Your task to perform on an android device: change alarm snooze length Image 0: 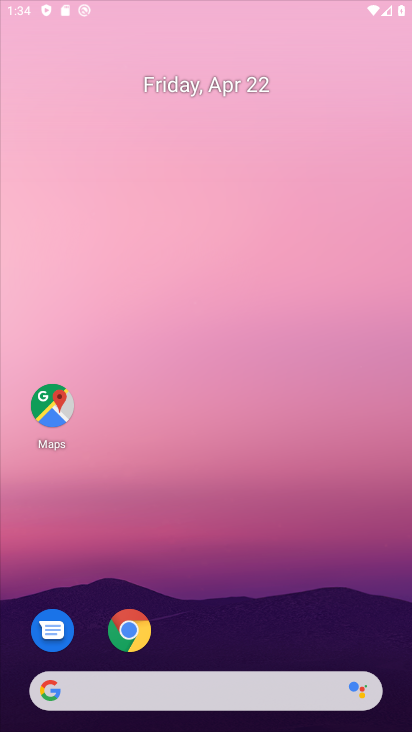
Step 0: press home button
Your task to perform on an android device: change alarm snooze length Image 1: 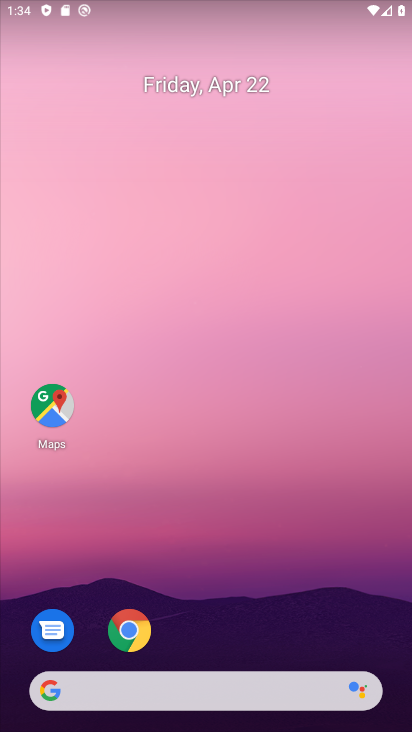
Step 1: drag from (348, 608) to (342, 186)
Your task to perform on an android device: change alarm snooze length Image 2: 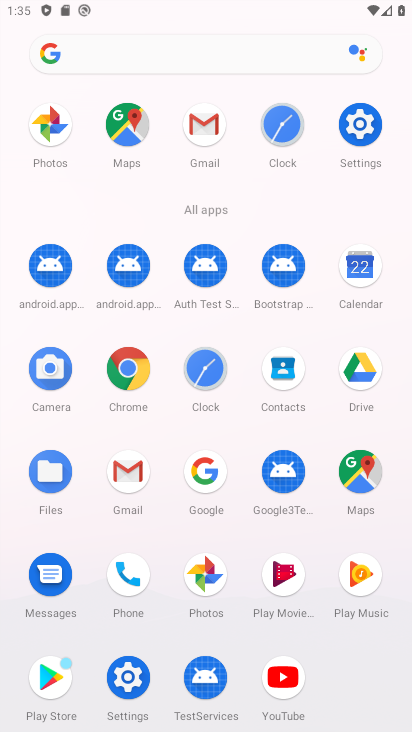
Step 2: click (211, 370)
Your task to perform on an android device: change alarm snooze length Image 3: 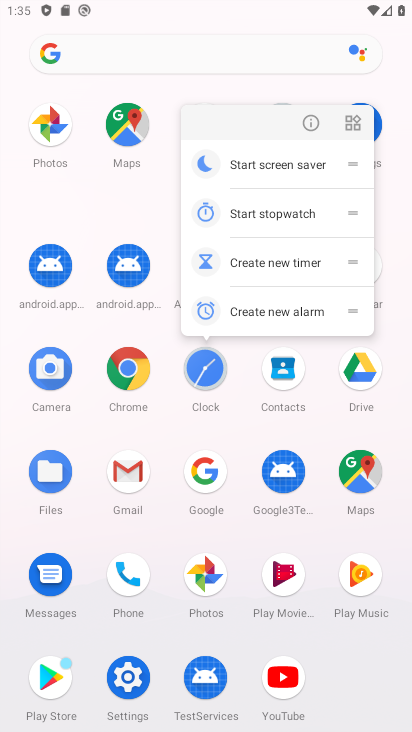
Step 3: click (204, 387)
Your task to perform on an android device: change alarm snooze length Image 4: 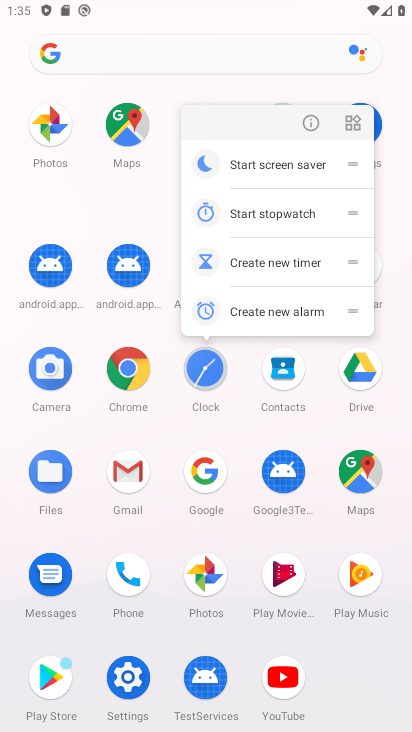
Step 4: click (203, 374)
Your task to perform on an android device: change alarm snooze length Image 5: 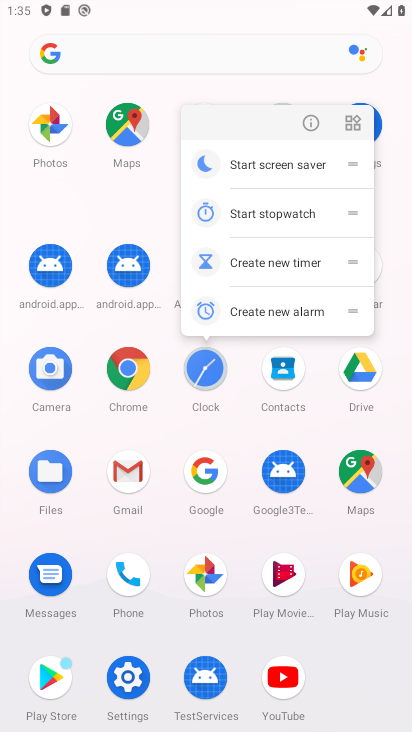
Step 5: click (199, 383)
Your task to perform on an android device: change alarm snooze length Image 6: 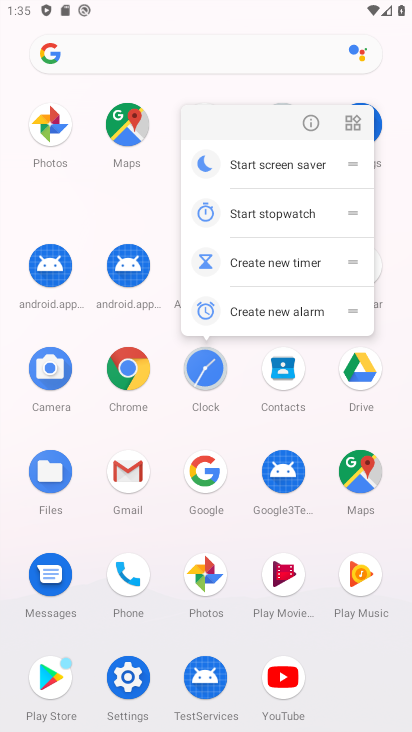
Step 6: click (204, 387)
Your task to perform on an android device: change alarm snooze length Image 7: 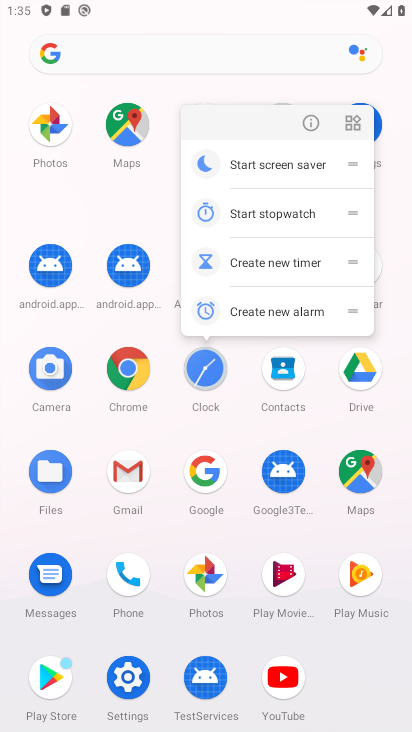
Step 7: click (222, 369)
Your task to perform on an android device: change alarm snooze length Image 8: 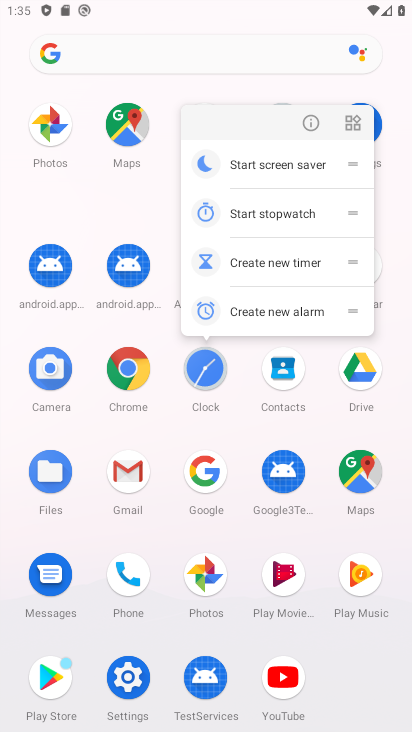
Step 8: click (204, 395)
Your task to perform on an android device: change alarm snooze length Image 9: 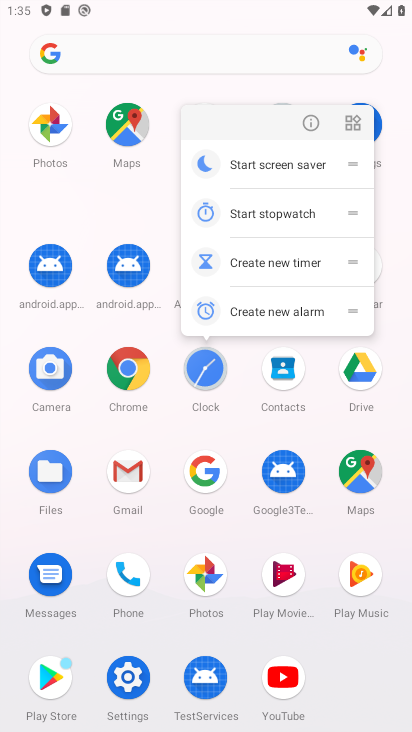
Step 9: click (212, 358)
Your task to perform on an android device: change alarm snooze length Image 10: 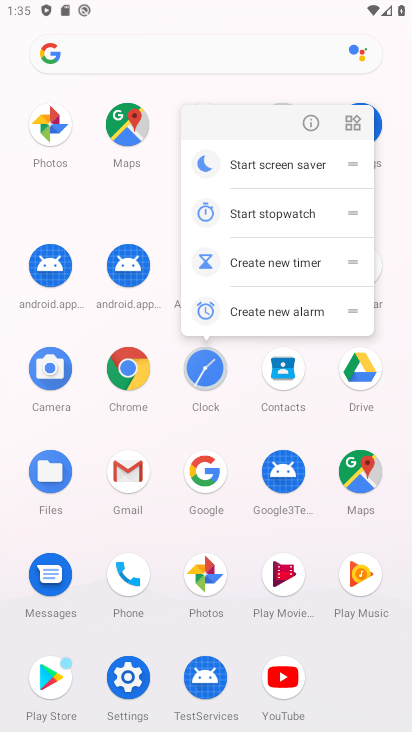
Step 10: click (206, 377)
Your task to perform on an android device: change alarm snooze length Image 11: 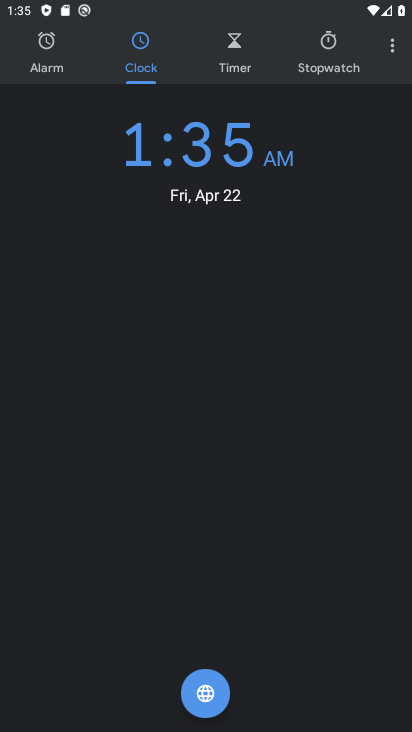
Step 11: click (397, 44)
Your task to perform on an android device: change alarm snooze length Image 12: 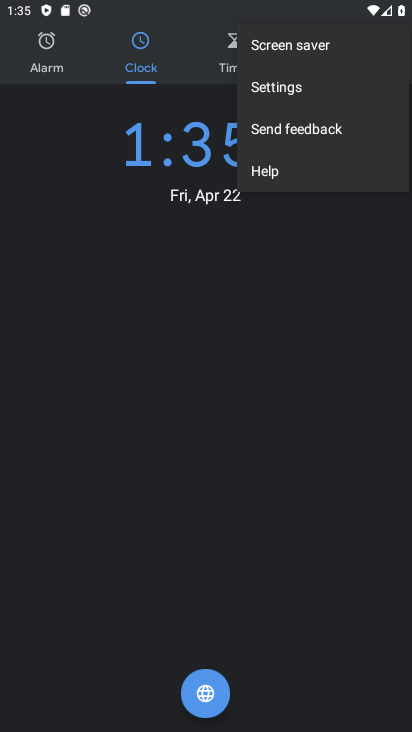
Step 12: click (303, 97)
Your task to perform on an android device: change alarm snooze length Image 13: 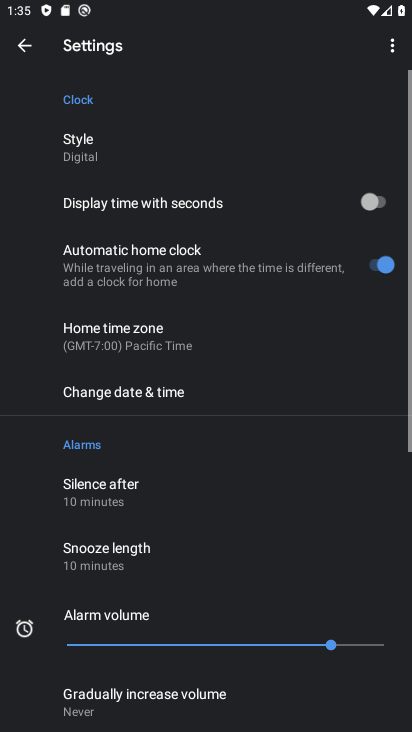
Step 13: drag from (230, 555) to (229, 189)
Your task to perform on an android device: change alarm snooze length Image 14: 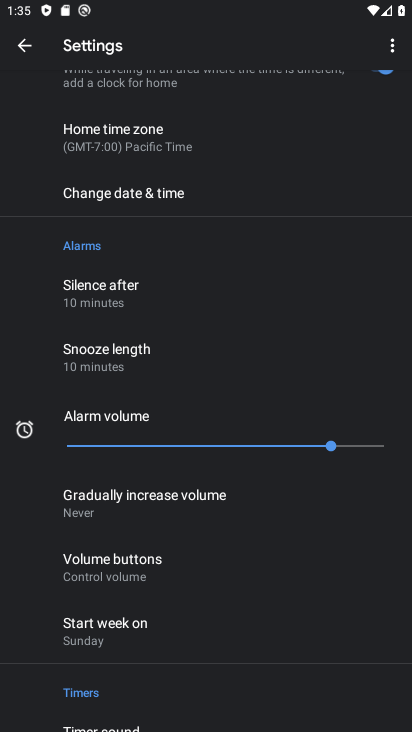
Step 14: click (134, 358)
Your task to perform on an android device: change alarm snooze length Image 15: 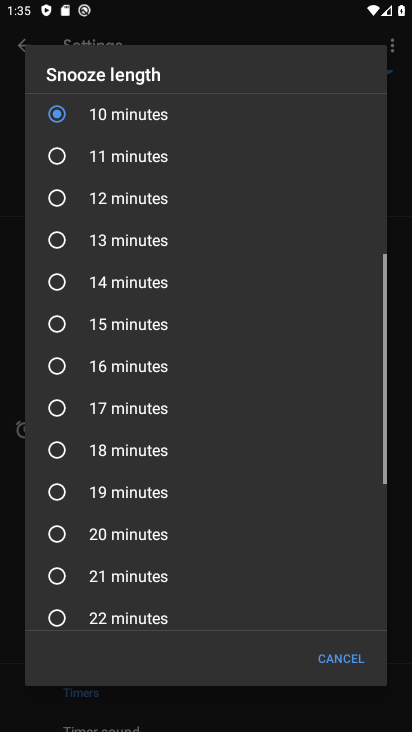
Step 15: click (133, 363)
Your task to perform on an android device: change alarm snooze length Image 16: 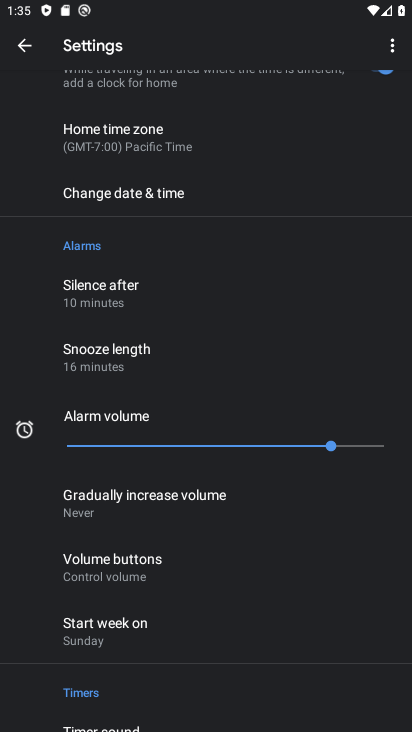
Step 16: task complete